Your task to perform on an android device: Open calendar and show me the second week of next month Image 0: 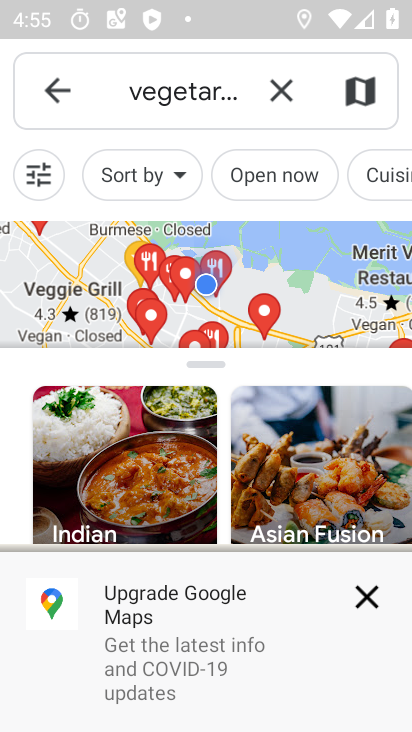
Step 0: press home button
Your task to perform on an android device: Open calendar and show me the second week of next month Image 1: 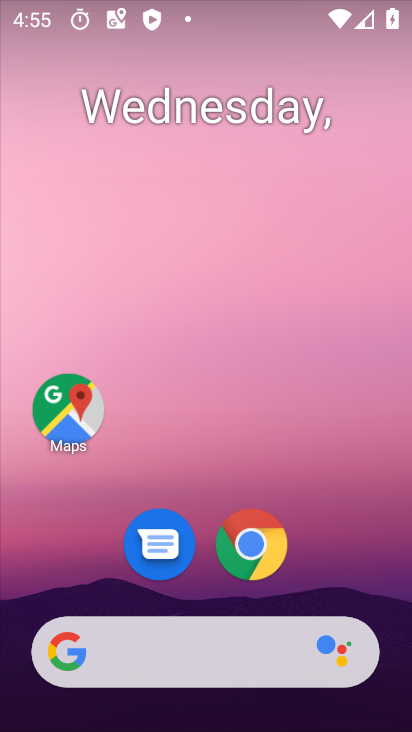
Step 1: drag from (225, 3) to (64, 424)
Your task to perform on an android device: Open calendar and show me the second week of next month Image 2: 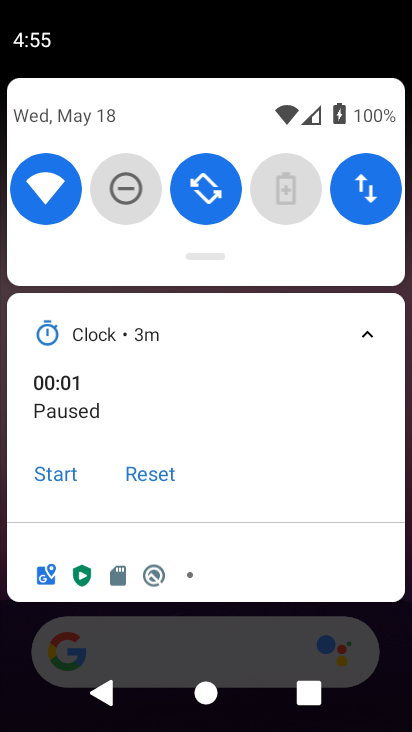
Step 2: drag from (210, 601) to (192, 119)
Your task to perform on an android device: Open calendar and show me the second week of next month Image 3: 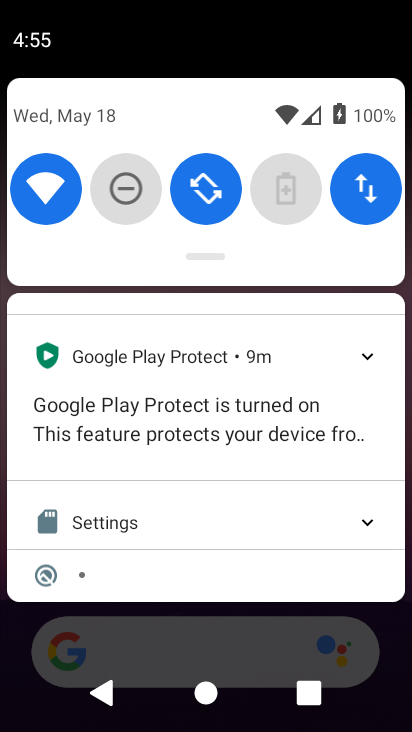
Step 3: drag from (189, 690) to (164, 64)
Your task to perform on an android device: Open calendar and show me the second week of next month Image 4: 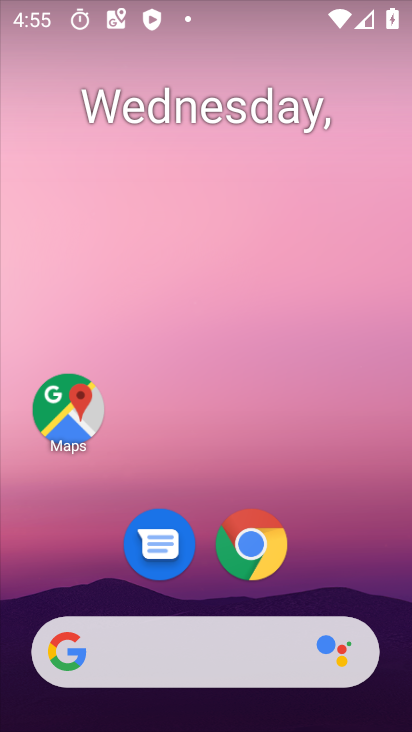
Step 4: drag from (186, 582) to (309, 28)
Your task to perform on an android device: Open calendar and show me the second week of next month Image 5: 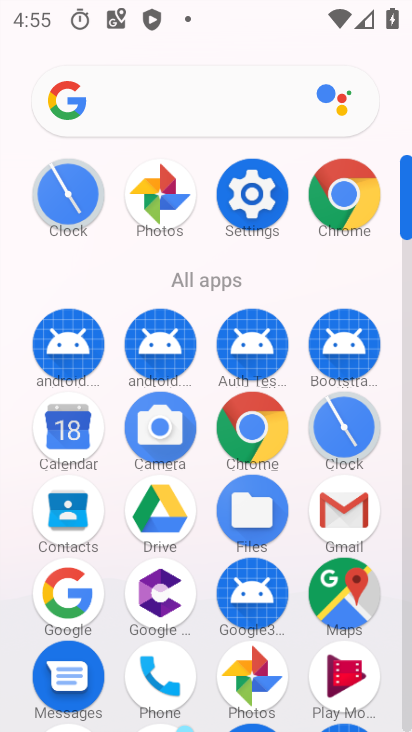
Step 5: click (85, 433)
Your task to perform on an android device: Open calendar and show me the second week of next month Image 6: 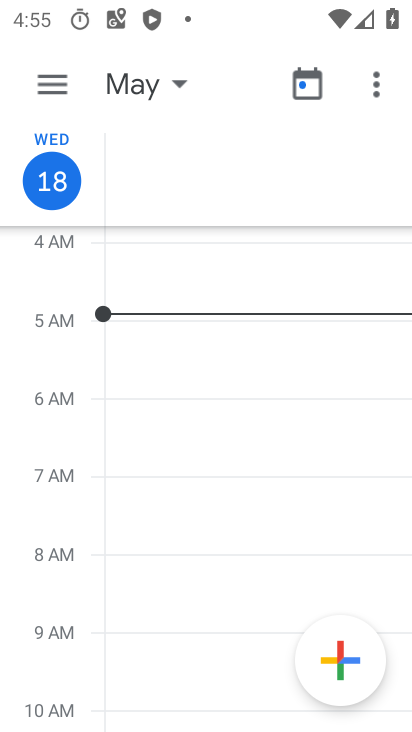
Step 6: click (293, 87)
Your task to perform on an android device: Open calendar and show me the second week of next month Image 7: 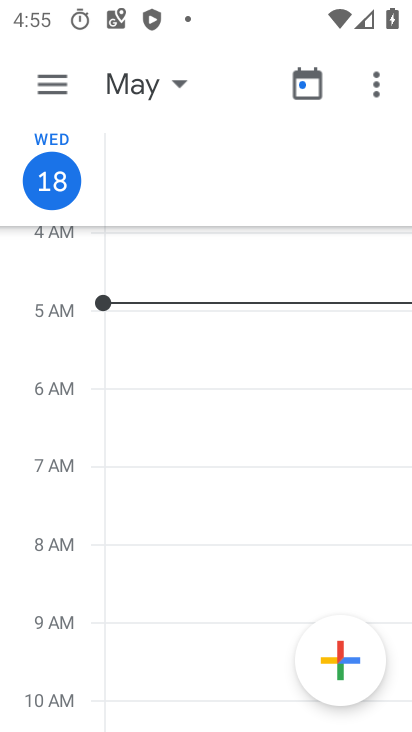
Step 7: click (320, 86)
Your task to perform on an android device: Open calendar and show me the second week of next month Image 8: 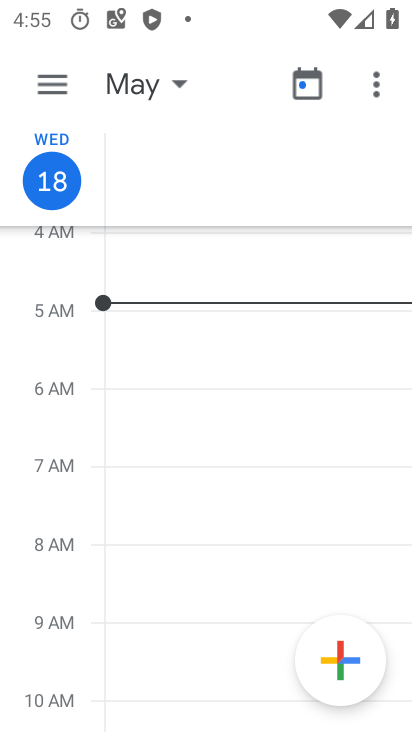
Step 8: click (308, 86)
Your task to perform on an android device: Open calendar and show me the second week of next month Image 9: 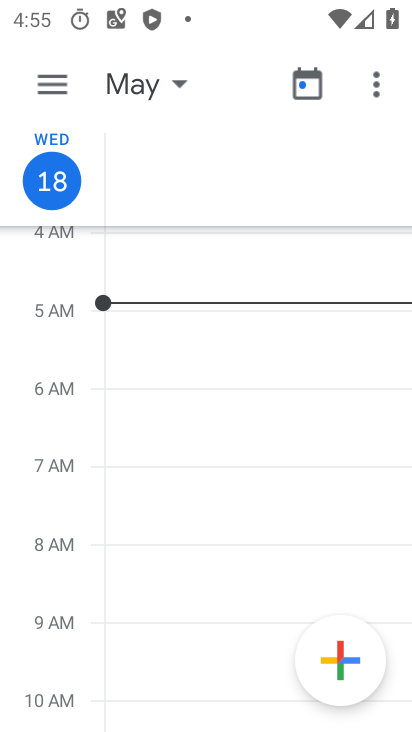
Step 9: click (56, 88)
Your task to perform on an android device: Open calendar and show me the second week of next month Image 10: 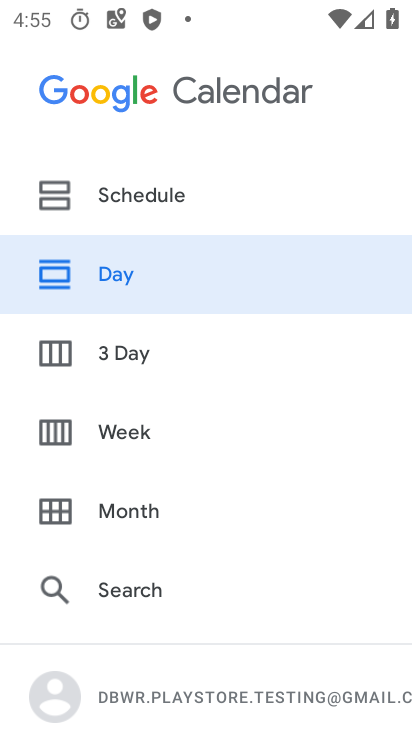
Step 10: click (172, 431)
Your task to perform on an android device: Open calendar and show me the second week of next month Image 11: 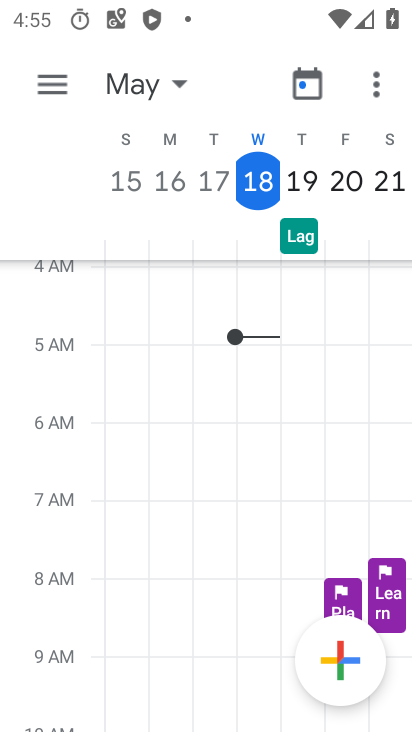
Step 11: task complete